Your task to perform on an android device: Turn off the flashlight Image 0: 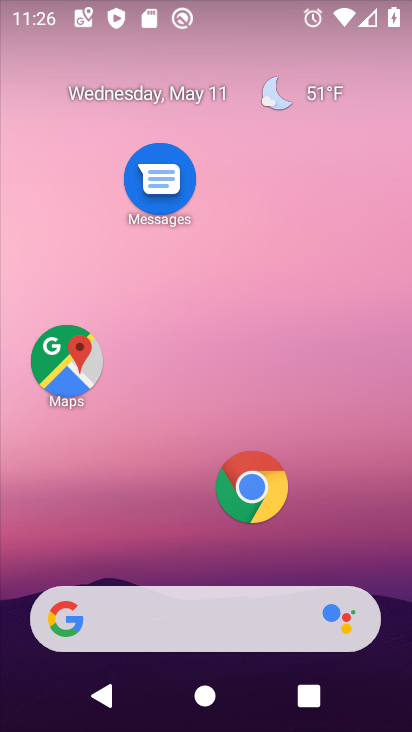
Step 0: drag from (225, 552) to (284, 112)
Your task to perform on an android device: Turn off the flashlight Image 1: 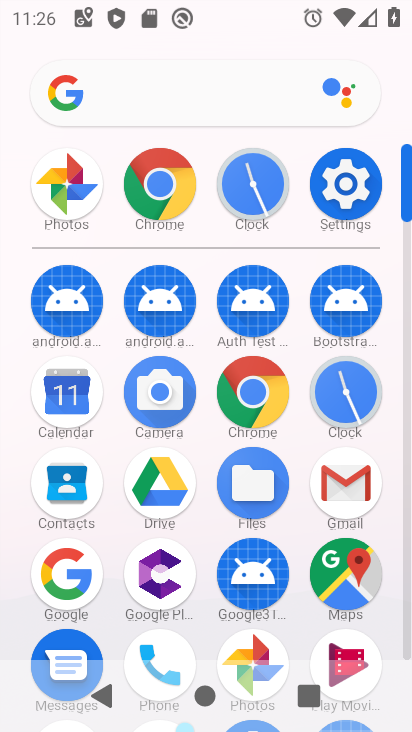
Step 1: click (362, 174)
Your task to perform on an android device: Turn off the flashlight Image 2: 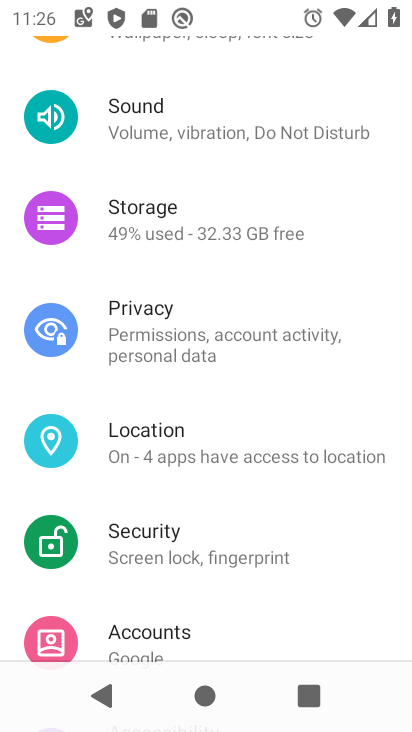
Step 2: task complete